Your task to perform on an android device: turn notification dots off Image 0: 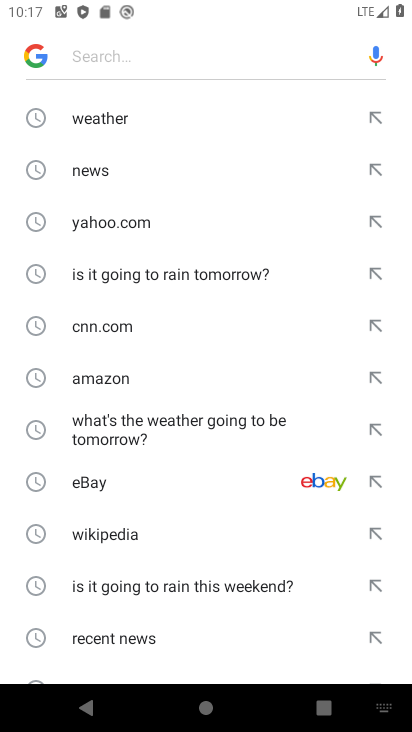
Step 0: press home button
Your task to perform on an android device: turn notification dots off Image 1: 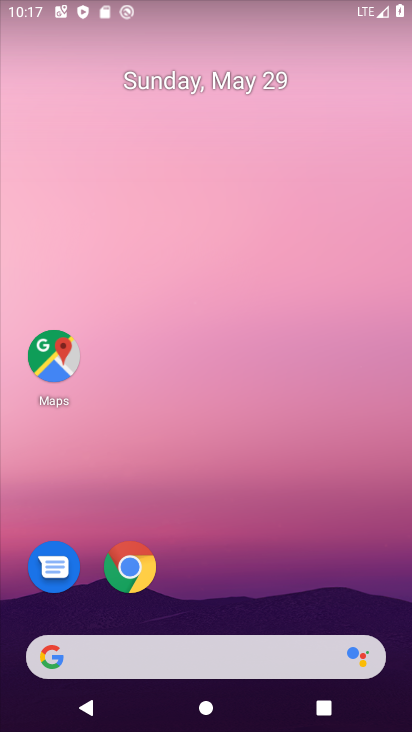
Step 1: drag from (398, 599) to (320, 63)
Your task to perform on an android device: turn notification dots off Image 2: 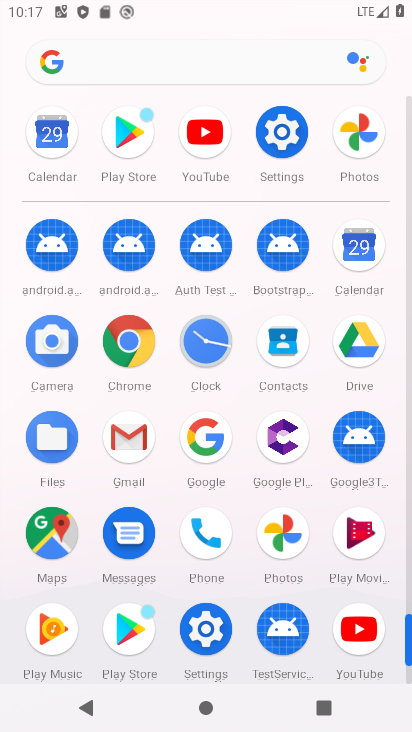
Step 2: click (206, 629)
Your task to perform on an android device: turn notification dots off Image 3: 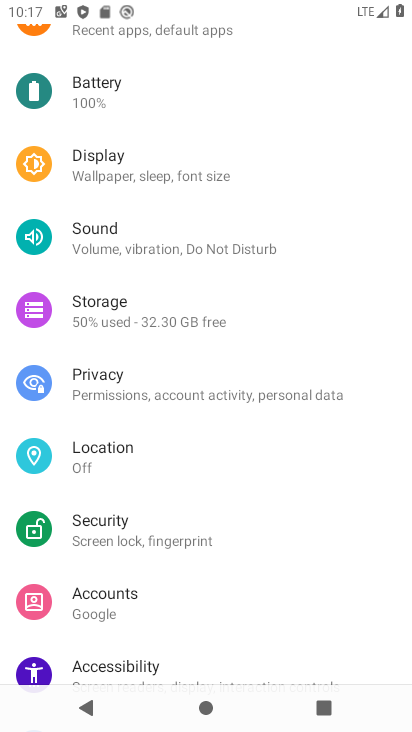
Step 3: click (335, 425)
Your task to perform on an android device: turn notification dots off Image 4: 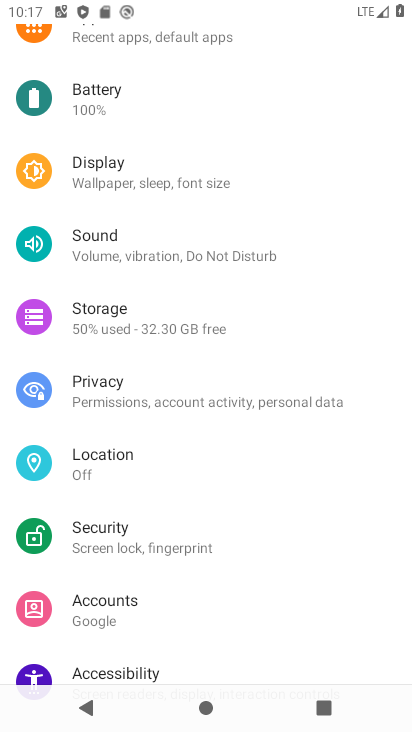
Step 4: drag from (287, 145) to (295, 485)
Your task to perform on an android device: turn notification dots off Image 5: 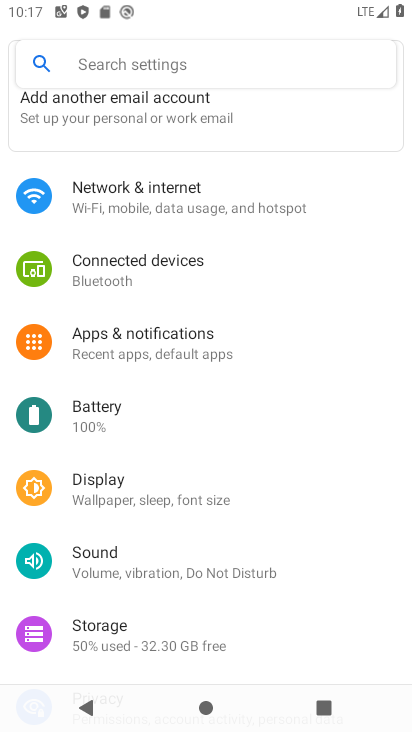
Step 5: click (118, 323)
Your task to perform on an android device: turn notification dots off Image 6: 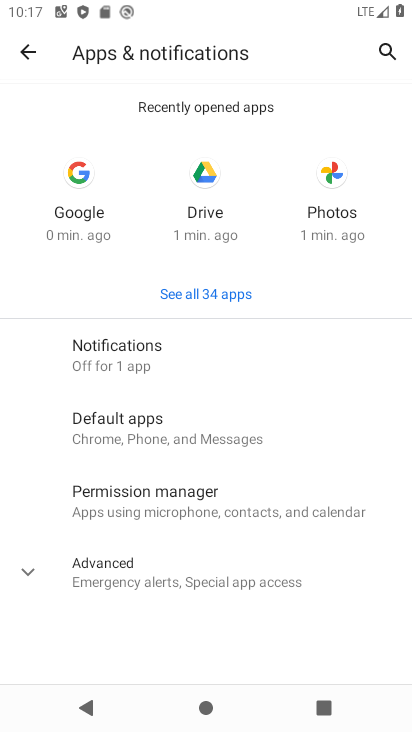
Step 6: click (110, 347)
Your task to perform on an android device: turn notification dots off Image 7: 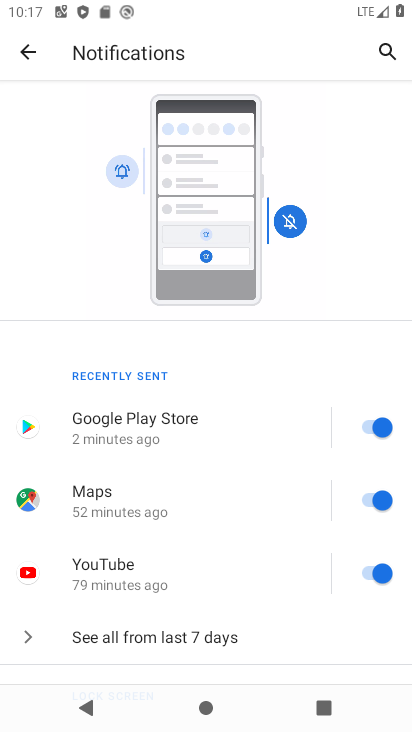
Step 7: drag from (311, 628) to (235, 74)
Your task to perform on an android device: turn notification dots off Image 8: 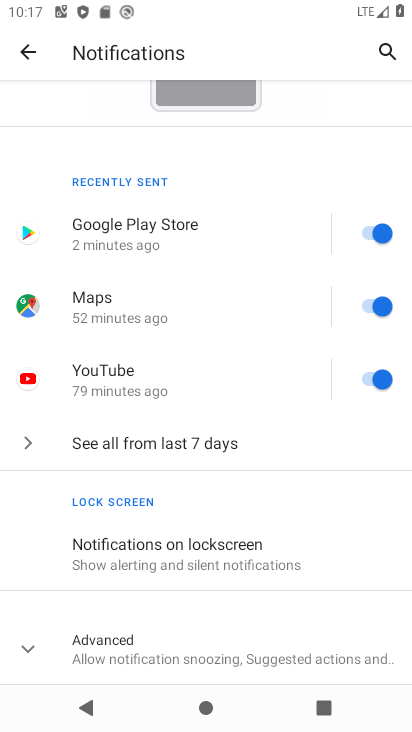
Step 8: click (8, 650)
Your task to perform on an android device: turn notification dots off Image 9: 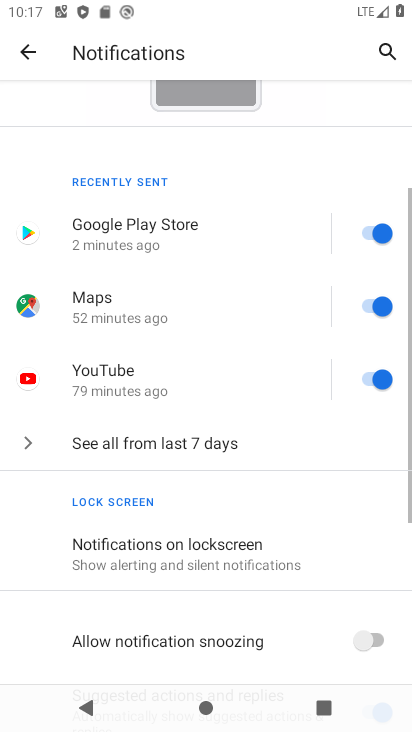
Step 9: drag from (282, 356) to (253, 176)
Your task to perform on an android device: turn notification dots off Image 10: 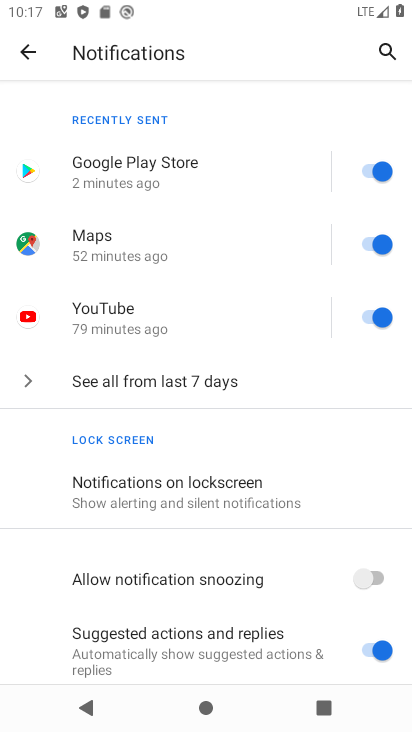
Step 10: drag from (296, 652) to (267, 93)
Your task to perform on an android device: turn notification dots off Image 11: 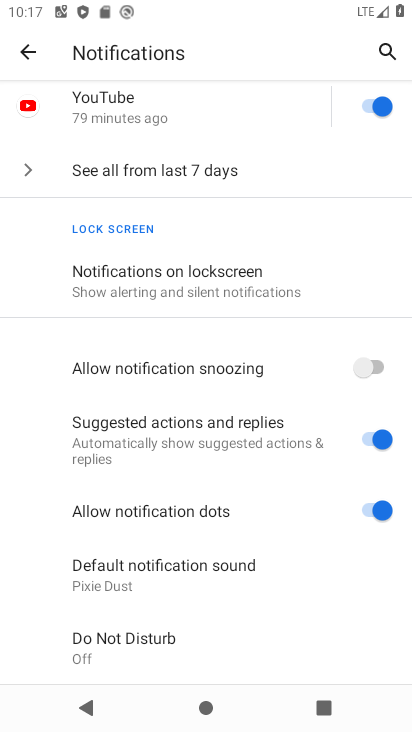
Step 11: click (363, 515)
Your task to perform on an android device: turn notification dots off Image 12: 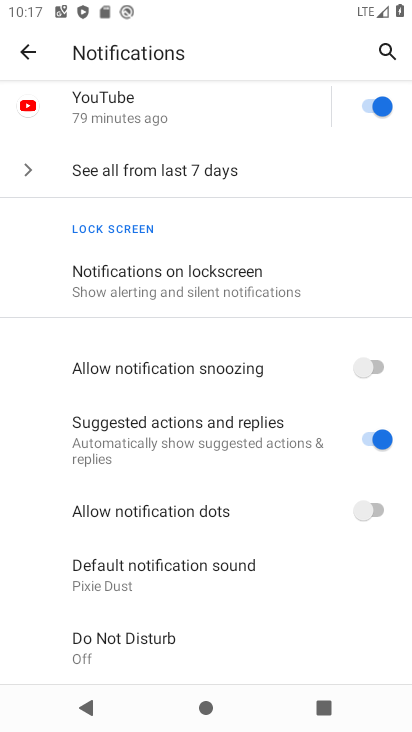
Step 12: task complete